Your task to perform on an android device: Open Yahoo.com Image 0: 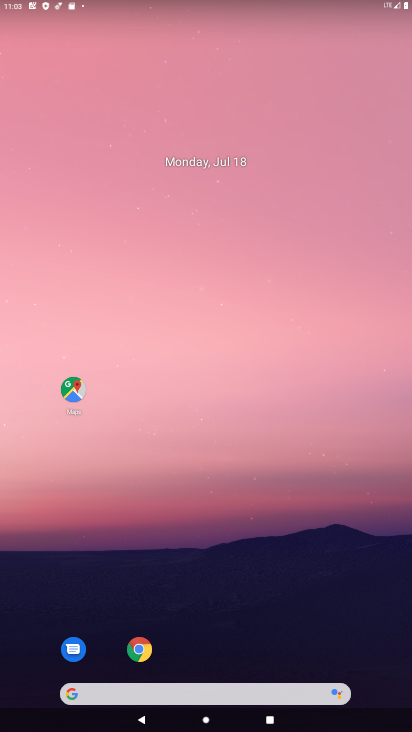
Step 0: click (260, 697)
Your task to perform on an android device: Open Yahoo.com Image 1: 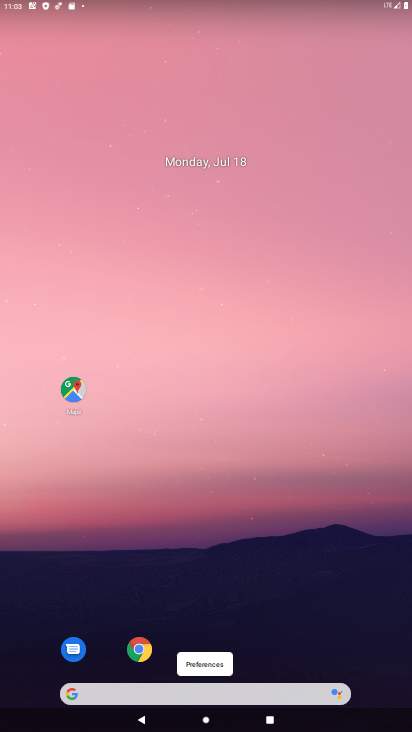
Step 1: drag from (255, 687) to (321, 5)
Your task to perform on an android device: Open Yahoo.com Image 2: 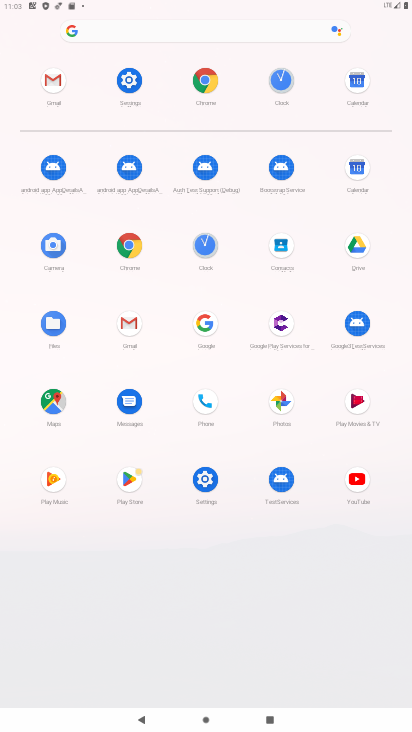
Step 2: click (191, 27)
Your task to perform on an android device: Open Yahoo.com Image 3: 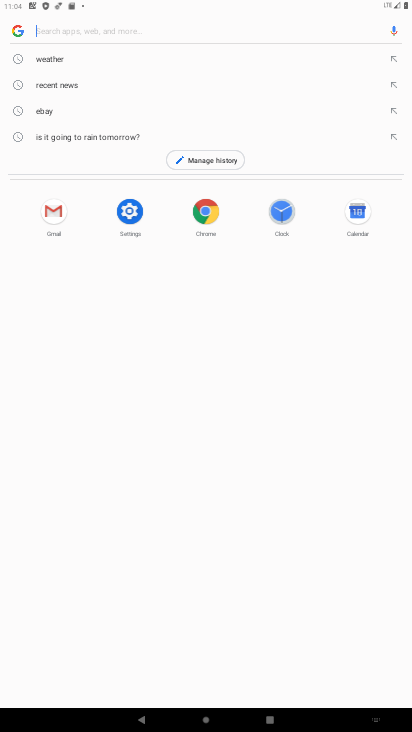
Step 3: type "yahoo.com"
Your task to perform on an android device: Open Yahoo.com Image 4: 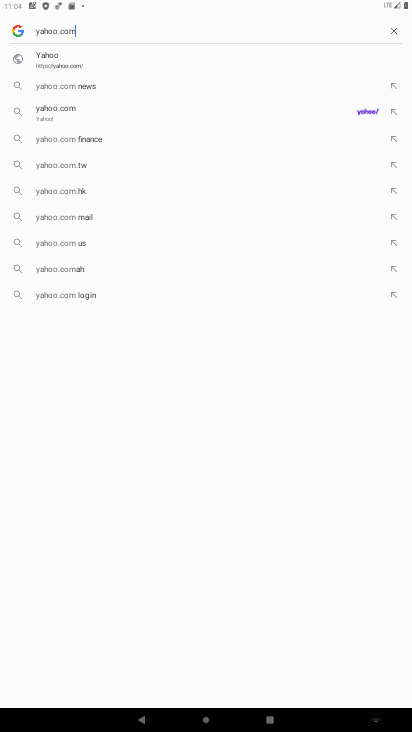
Step 4: click (163, 60)
Your task to perform on an android device: Open Yahoo.com Image 5: 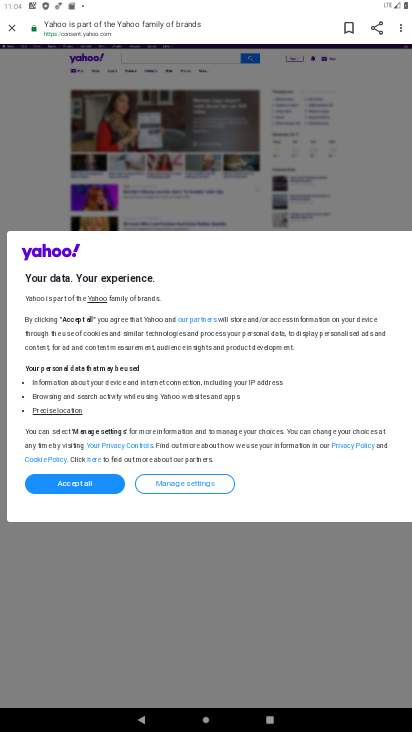
Step 5: task complete